Your task to perform on an android device: turn off data saver in the chrome app Image 0: 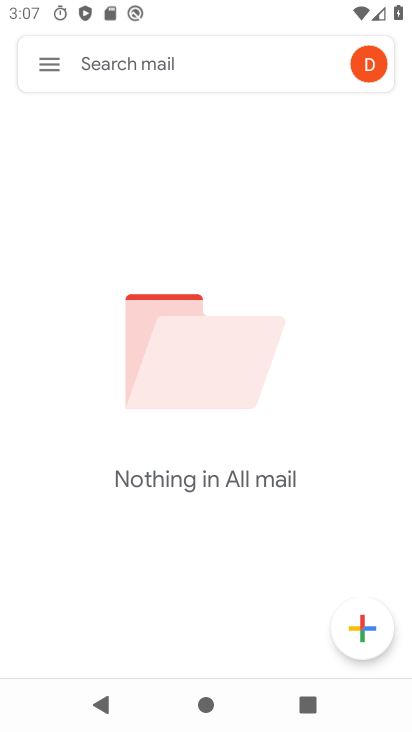
Step 0: press home button
Your task to perform on an android device: turn off data saver in the chrome app Image 1: 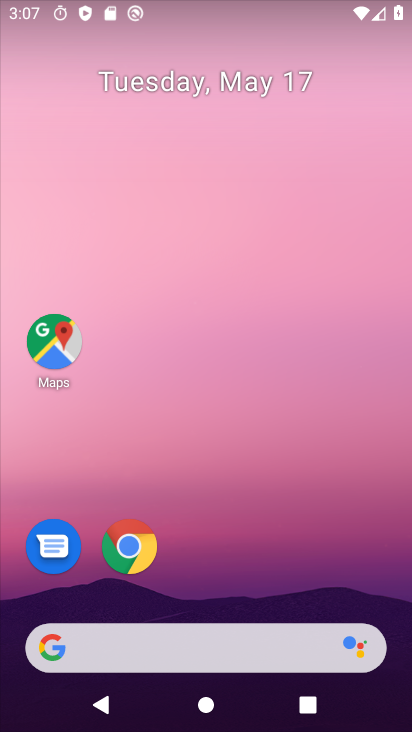
Step 1: drag from (252, 504) to (250, 105)
Your task to perform on an android device: turn off data saver in the chrome app Image 2: 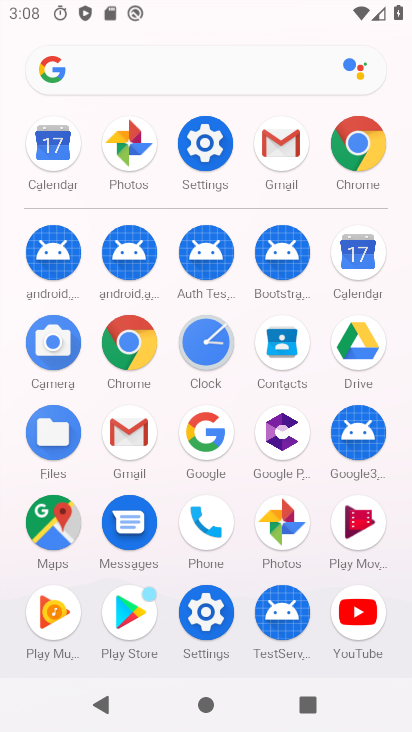
Step 2: click (366, 177)
Your task to perform on an android device: turn off data saver in the chrome app Image 3: 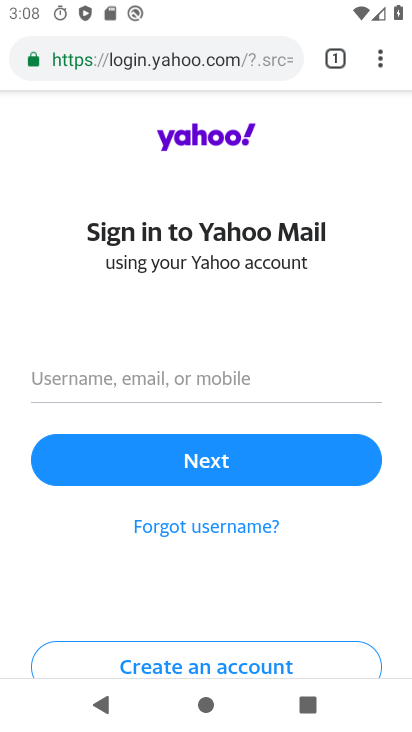
Step 3: click (380, 65)
Your task to perform on an android device: turn off data saver in the chrome app Image 4: 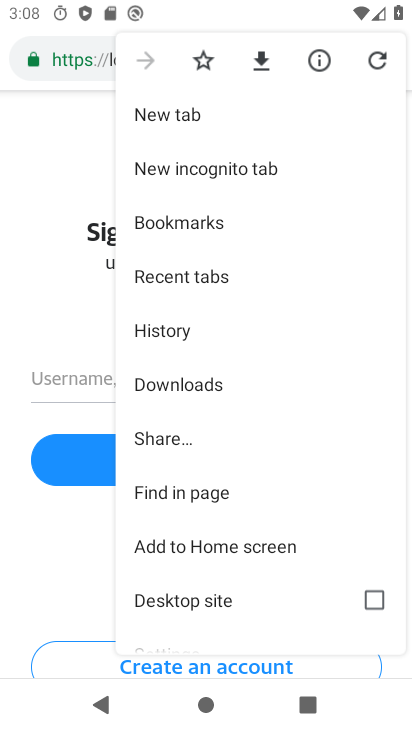
Step 4: drag from (271, 552) to (256, 379)
Your task to perform on an android device: turn off data saver in the chrome app Image 5: 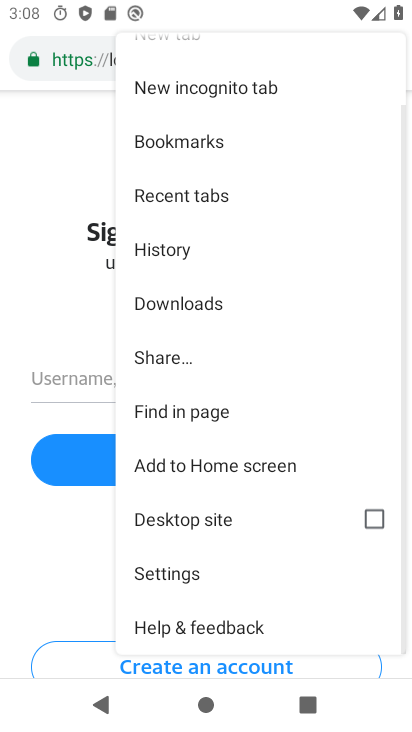
Step 5: click (220, 572)
Your task to perform on an android device: turn off data saver in the chrome app Image 6: 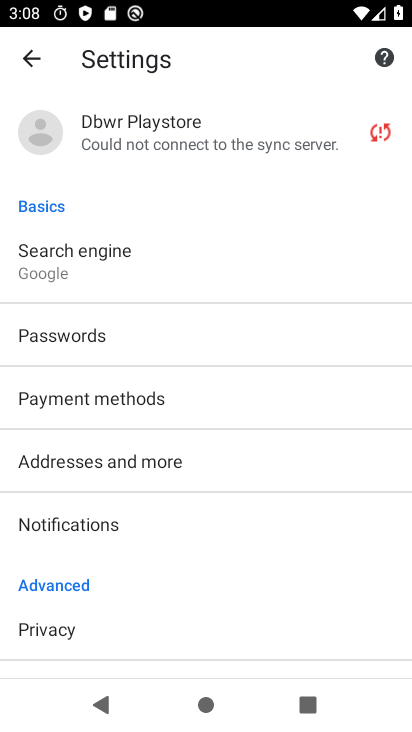
Step 6: drag from (221, 571) to (178, 7)
Your task to perform on an android device: turn off data saver in the chrome app Image 7: 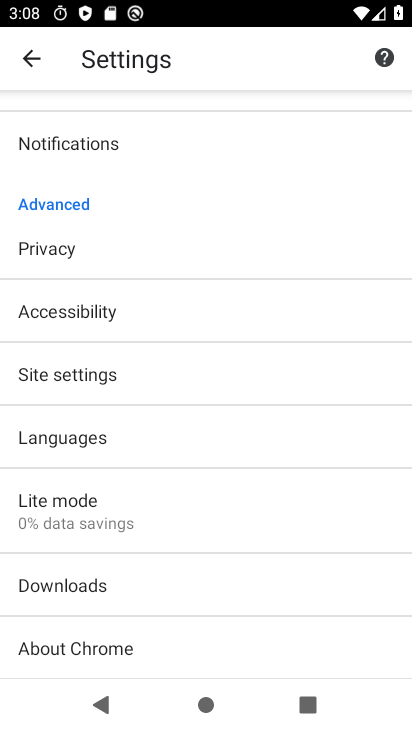
Step 7: click (168, 516)
Your task to perform on an android device: turn off data saver in the chrome app Image 8: 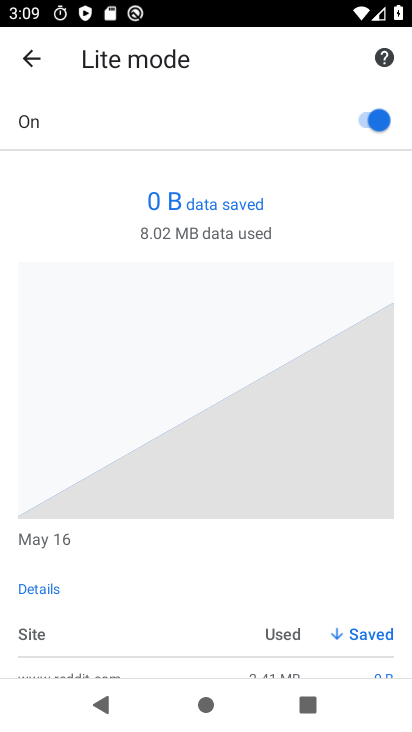
Step 8: click (374, 128)
Your task to perform on an android device: turn off data saver in the chrome app Image 9: 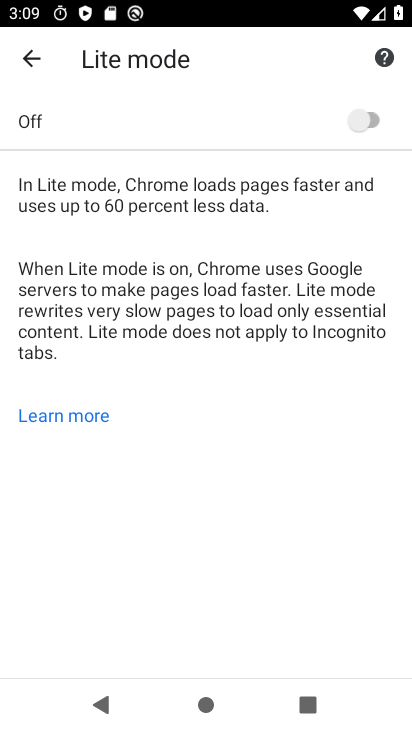
Step 9: task complete